Your task to perform on an android device: check the backup settings in the google photos Image 0: 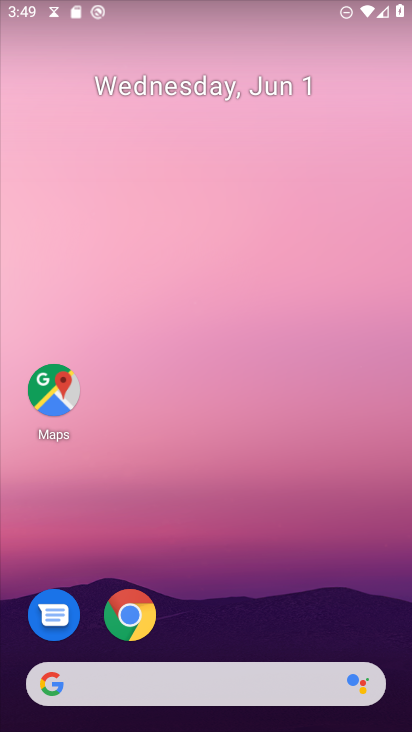
Step 0: press home button
Your task to perform on an android device: check the backup settings in the google photos Image 1: 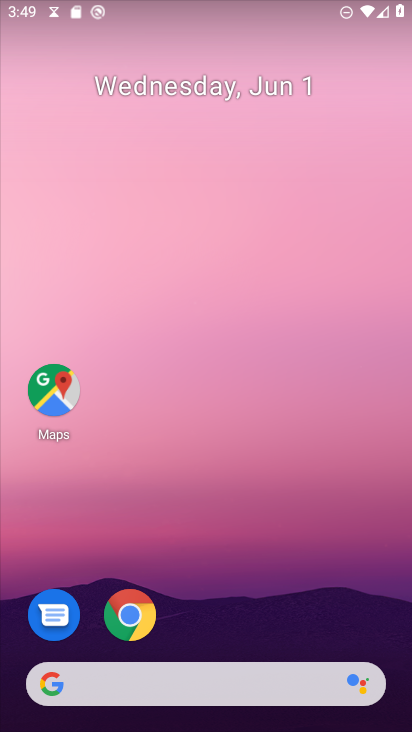
Step 1: drag from (231, 645) to (242, 77)
Your task to perform on an android device: check the backup settings in the google photos Image 2: 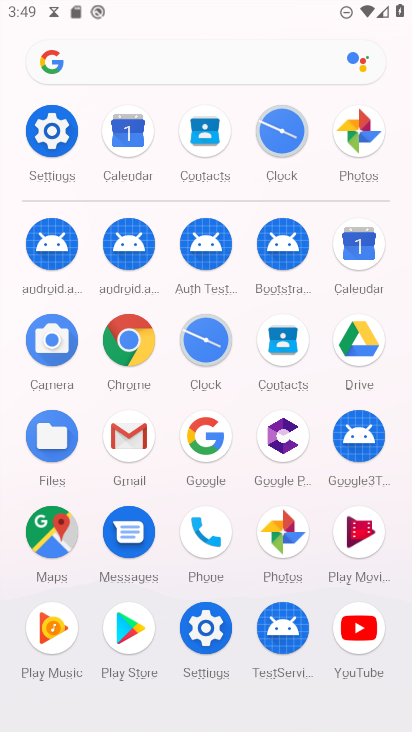
Step 2: click (281, 524)
Your task to perform on an android device: check the backup settings in the google photos Image 3: 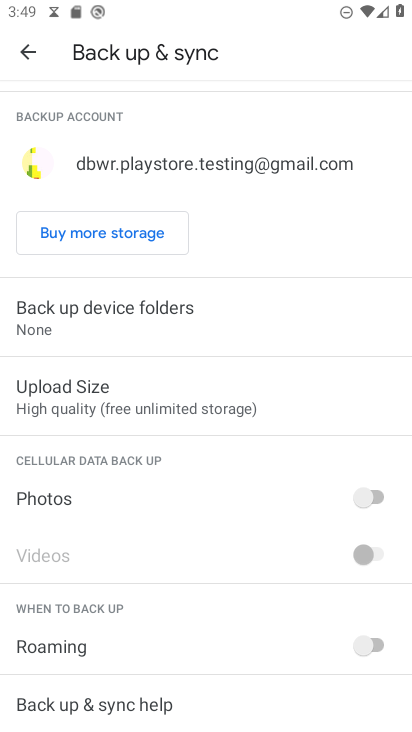
Step 3: task complete